Your task to perform on an android device: turn off notifications settings in the gmail app Image 0: 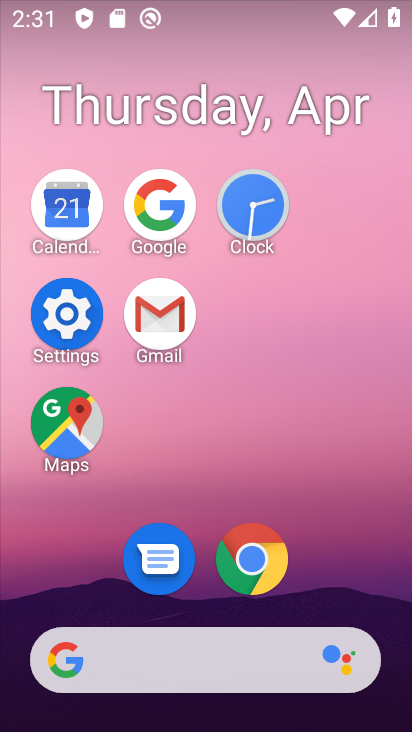
Step 0: click (151, 309)
Your task to perform on an android device: turn off notifications settings in the gmail app Image 1: 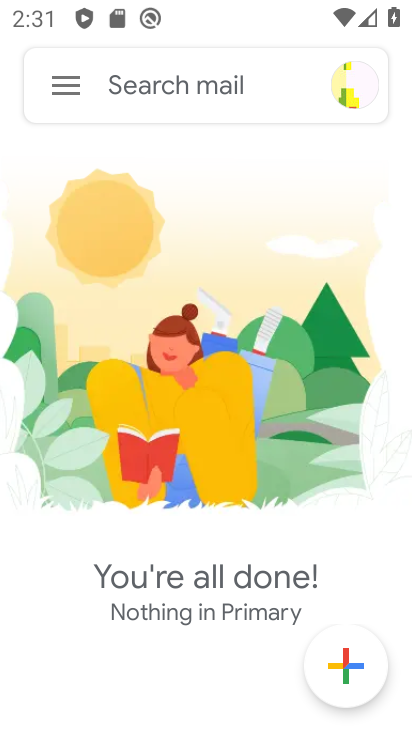
Step 1: click (62, 84)
Your task to perform on an android device: turn off notifications settings in the gmail app Image 2: 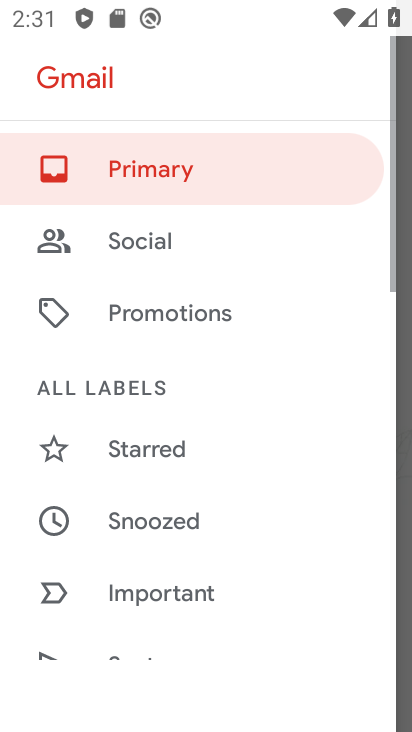
Step 2: drag from (147, 555) to (219, 114)
Your task to perform on an android device: turn off notifications settings in the gmail app Image 3: 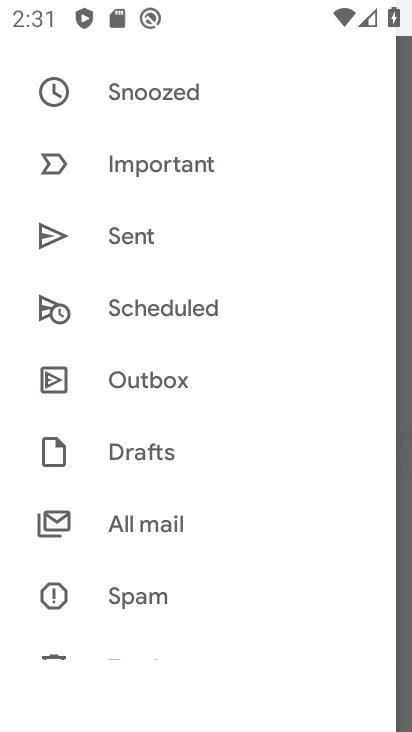
Step 3: drag from (156, 497) to (196, 110)
Your task to perform on an android device: turn off notifications settings in the gmail app Image 4: 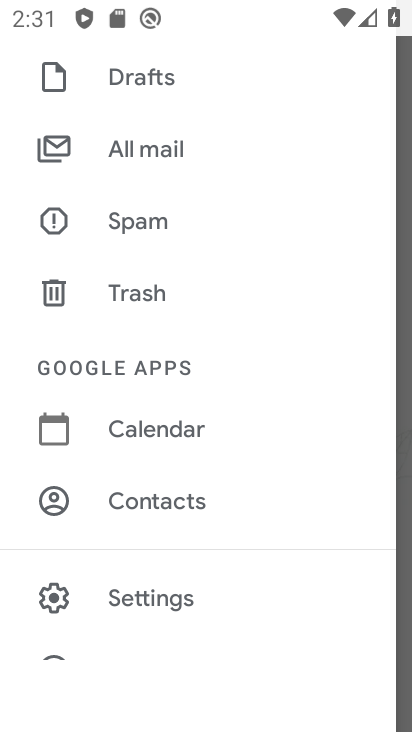
Step 4: click (134, 592)
Your task to perform on an android device: turn off notifications settings in the gmail app Image 5: 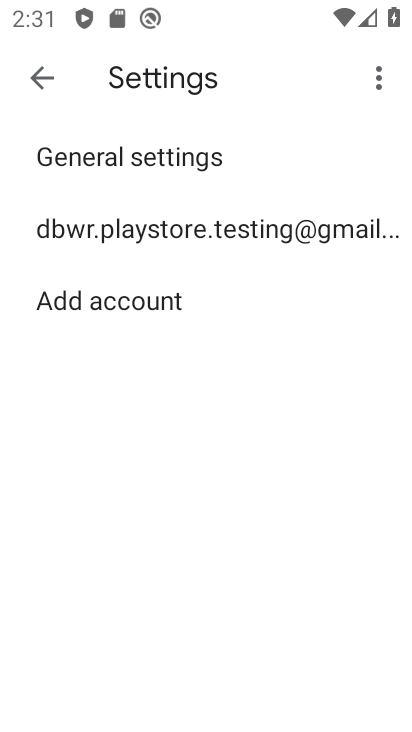
Step 5: click (203, 235)
Your task to perform on an android device: turn off notifications settings in the gmail app Image 6: 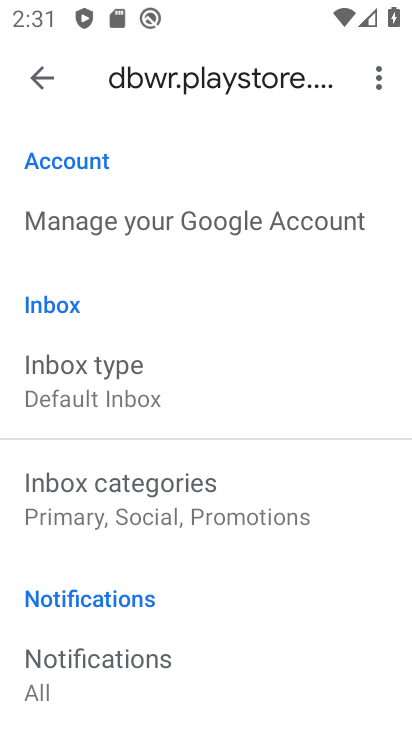
Step 6: drag from (173, 585) to (218, 264)
Your task to perform on an android device: turn off notifications settings in the gmail app Image 7: 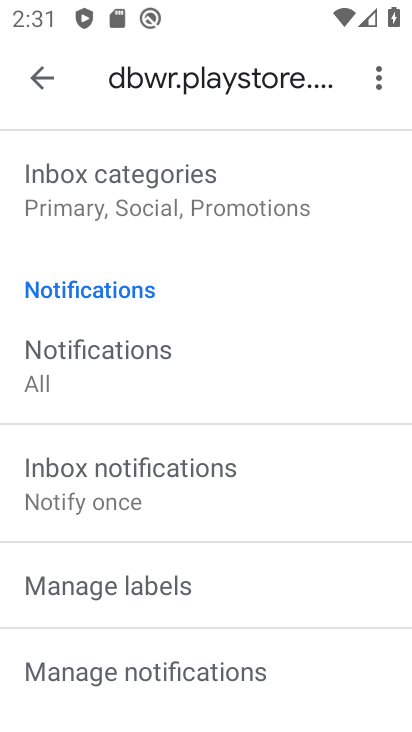
Step 7: click (142, 368)
Your task to perform on an android device: turn off notifications settings in the gmail app Image 8: 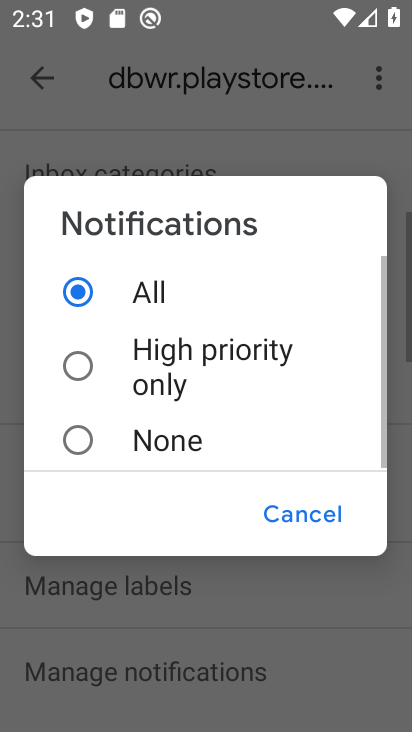
Step 8: click (104, 443)
Your task to perform on an android device: turn off notifications settings in the gmail app Image 9: 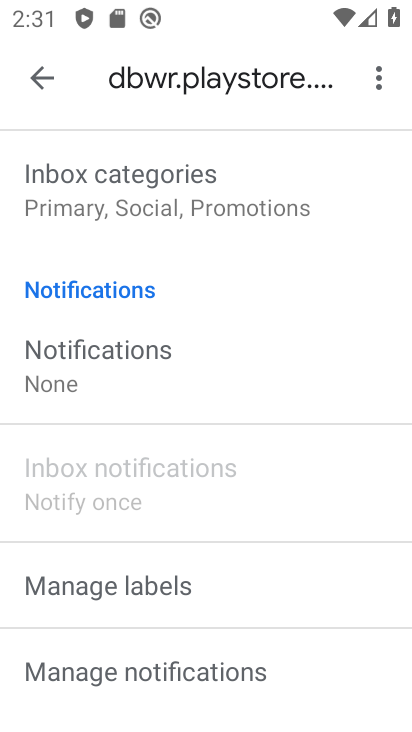
Step 9: task complete